Your task to perform on an android device: Open ESPN.com Image 0: 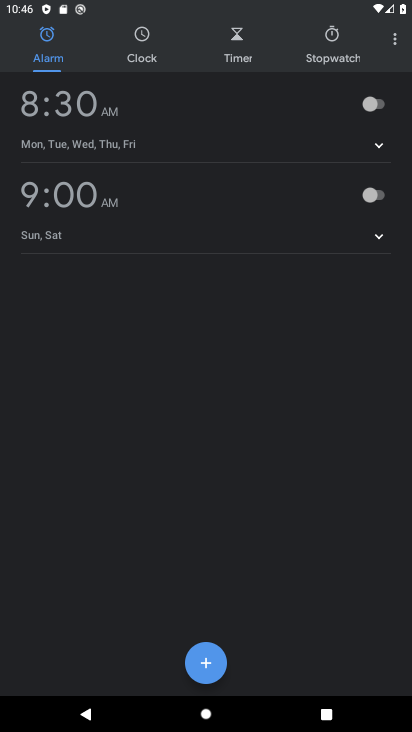
Step 0: press home button
Your task to perform on an android device: Open ESPN.com Image 1: 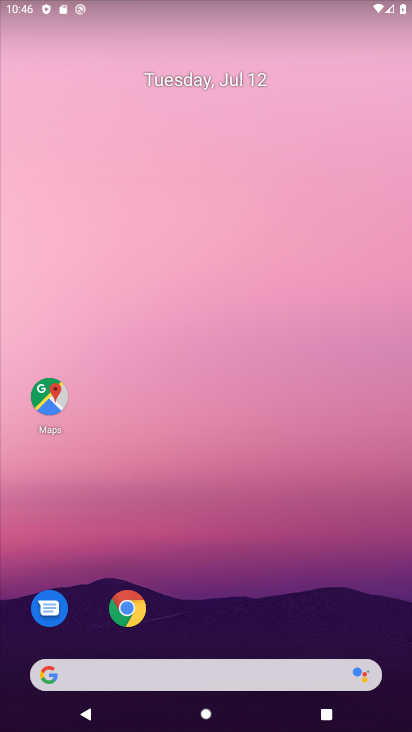
Step 1: click (162, 670)
Your task to perform on an android device: Open ESPN.com Image 2: 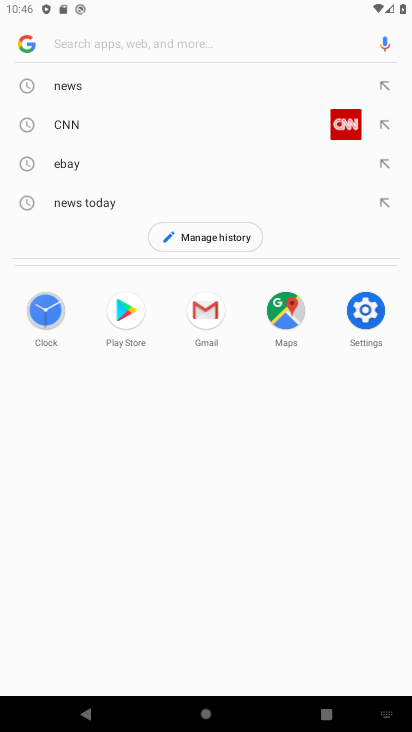
Step 2: type "espn"
Your task to perform on an android device: Open ESPN.com Image 3: 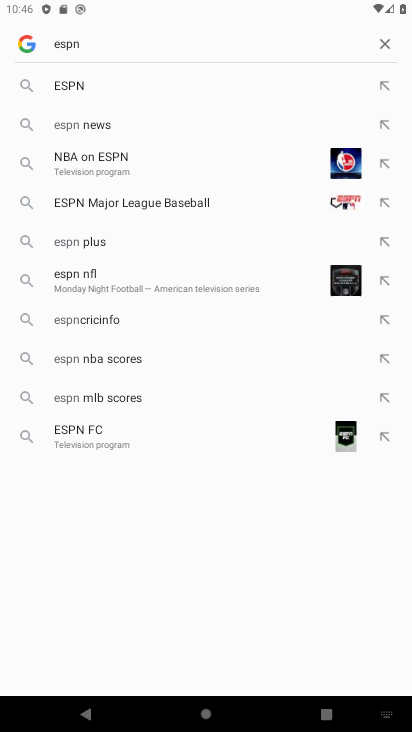
Step 3: click (82, 121)
Your task to perform on an android device: Open ESPN.com Image 4: 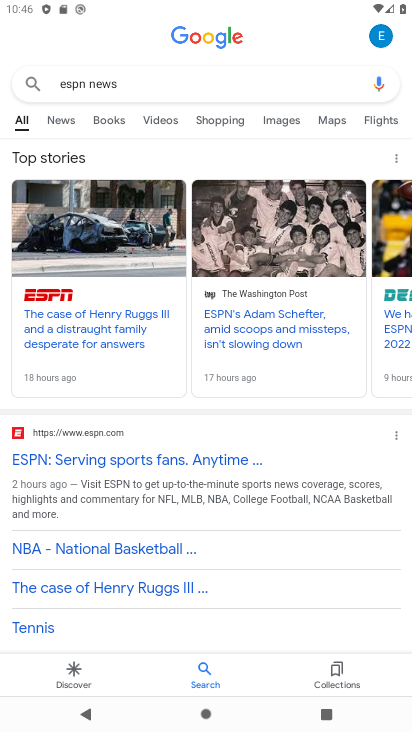
Step 4: click (59, 462)
Your task to perform on an android device: Open ESPN.com Image 5: 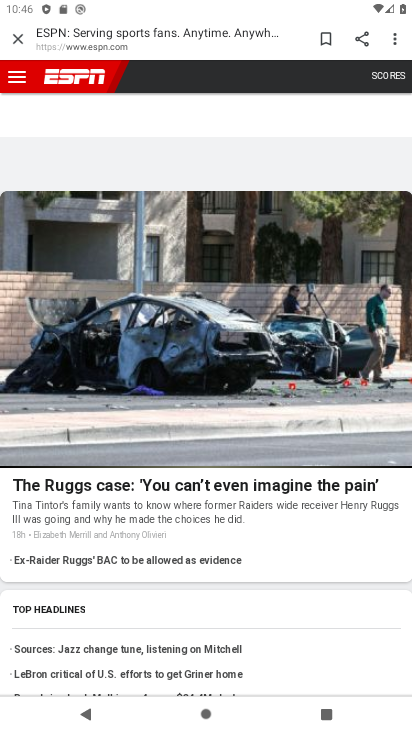
Step 5: task complete